Your task to perform on an android device: clear all cookies in the chrome app Image 0: 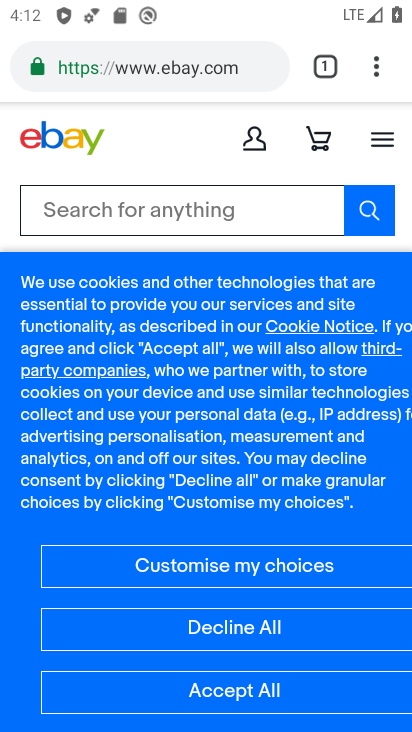
Step 0: press home button
Your task to perform on an android device: clear all cookies in the chrome app Image 1: 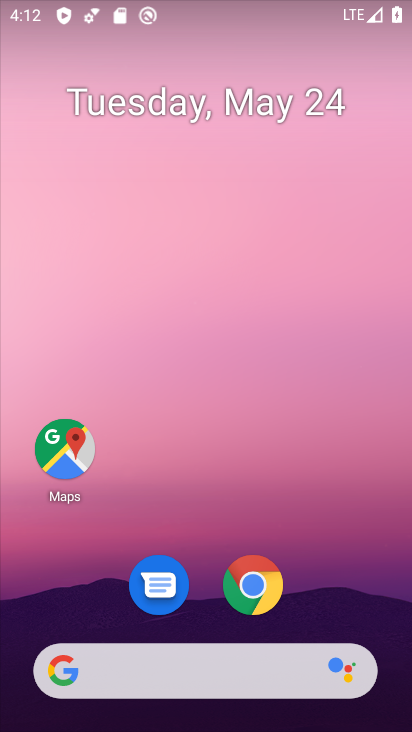
Step 1: click (268, 587)
Your task to perform on an android device: clear all cookies in the chrome app Image 2: 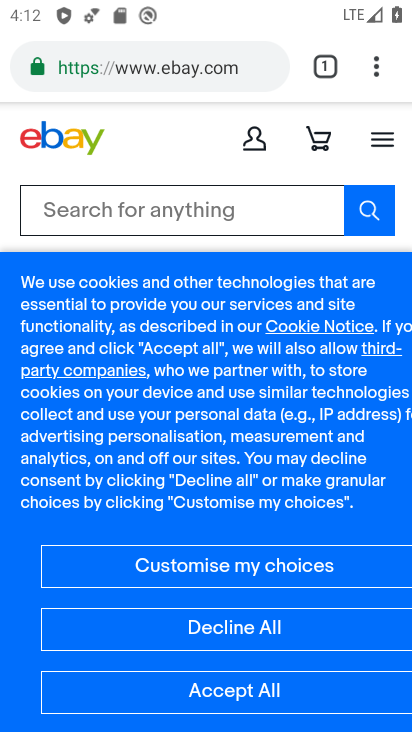
Step 2: click (373, 69)
Your task to perform on an android device: clear all cookies in the chrome app Image 3: 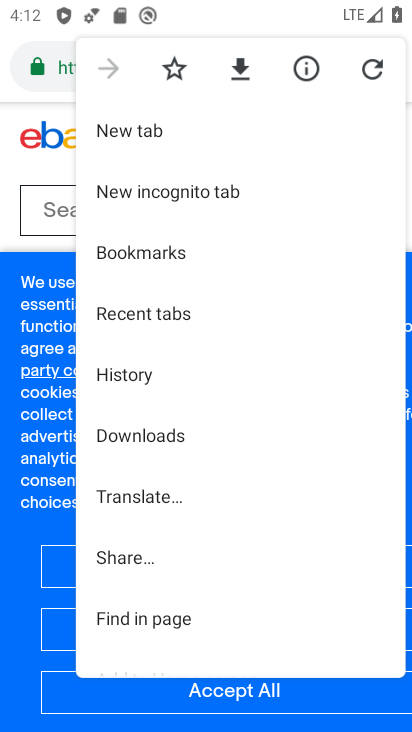
Step 3: drag from (212, 492) to (237, 240)
Your task to perform on an android device: clear all cookies in the chrome app Image 4: 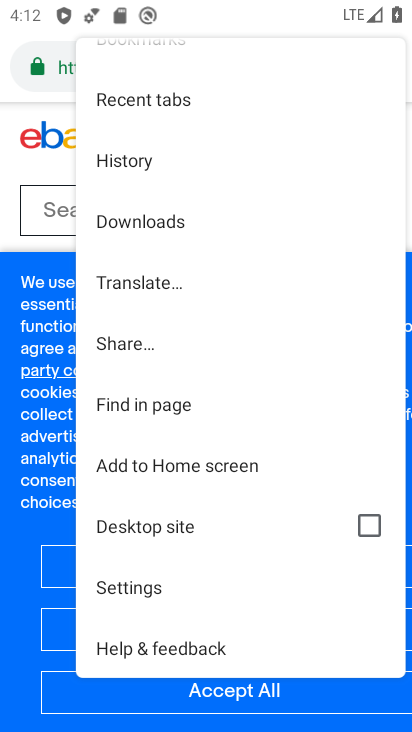
Step 4: click (171, 156)
Your task to perform on an android device: clear all cookies in the chrome app Image 5: 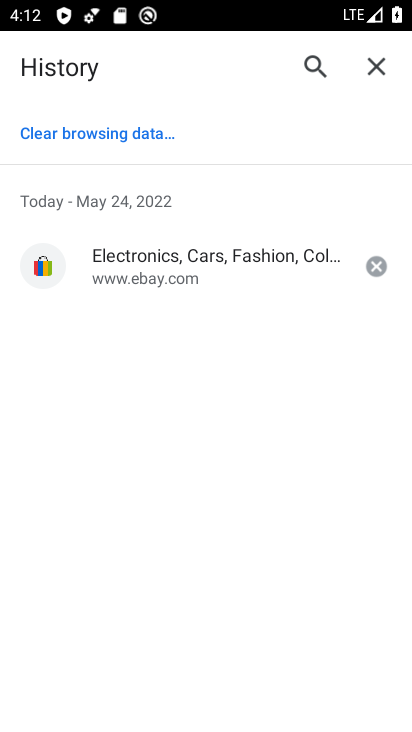
Step 5: click (123, 117)
Your task to perform on an android device: clear all cookies in the chrome app Image 6: 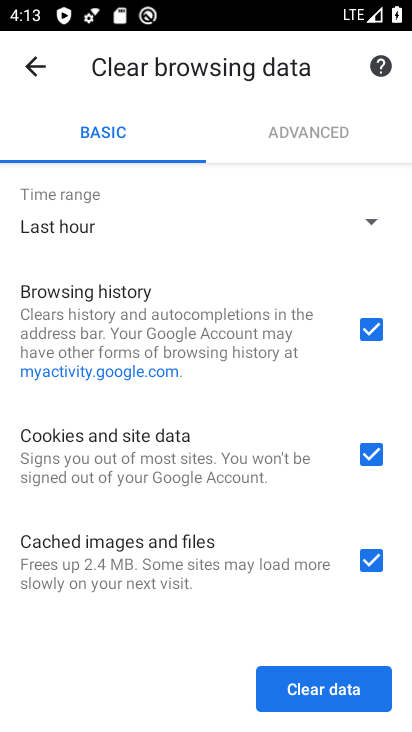
Step 6: click (362, 320)
Your task to perform on an android device: clear all cookies in the chrome app Image 7: 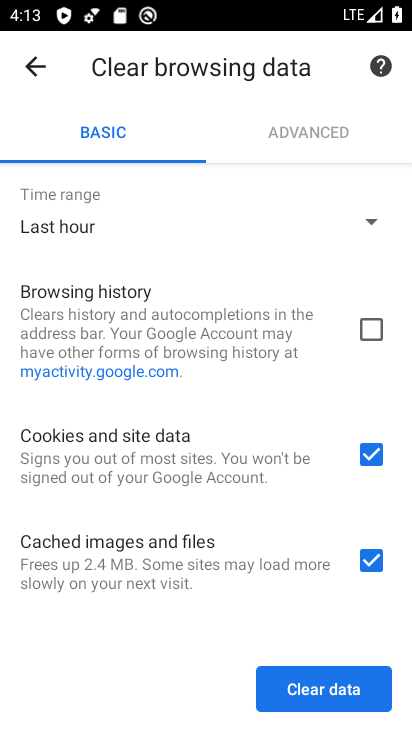
Step 7: click (367, 553)
Your task to perform on an android device: clear all cookies in the chrome app Image 8: 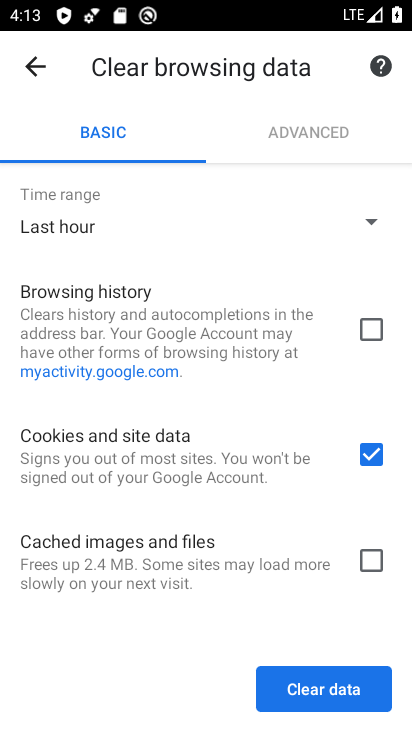
Step 8: click (360, 688)
Your task to perform on an android device: clear all cookies in the chrome app Image 9: 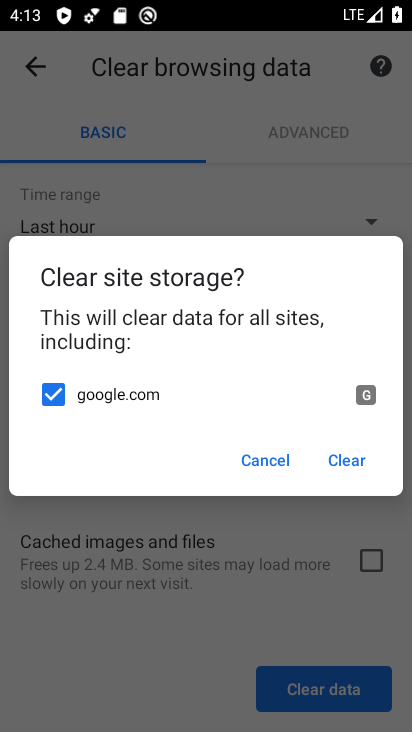
Step 9: click (355, 460)
Your task to perform on an android device: clear all cookies in the chrome app Image 10: 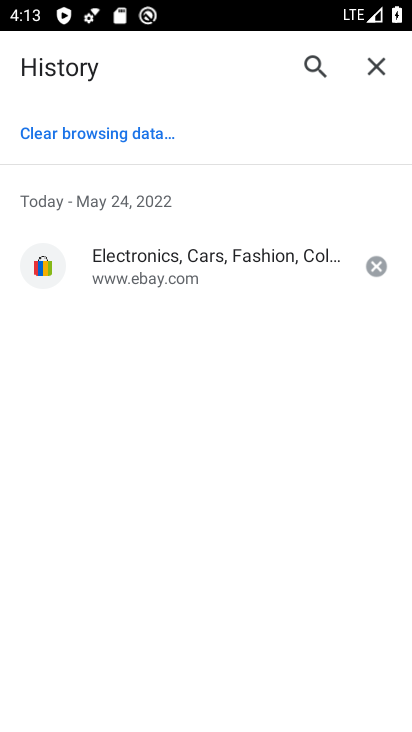
Step 10: task complete